Your task to perform on an android device: see tabs open on other devices in the chrome app Image 0: 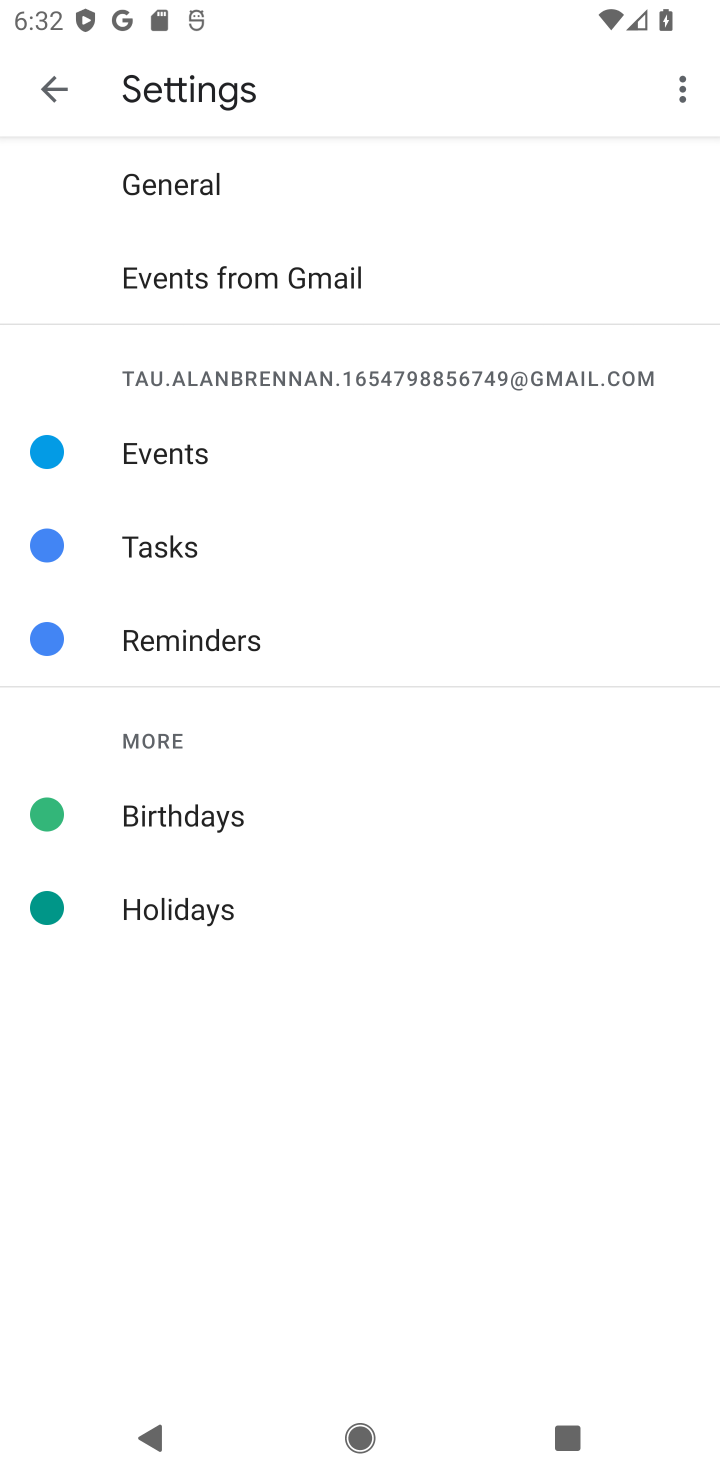
Step 0: press home button
Your task to perform on an android device: see tabs open on other devices in the chrome app Image 1: 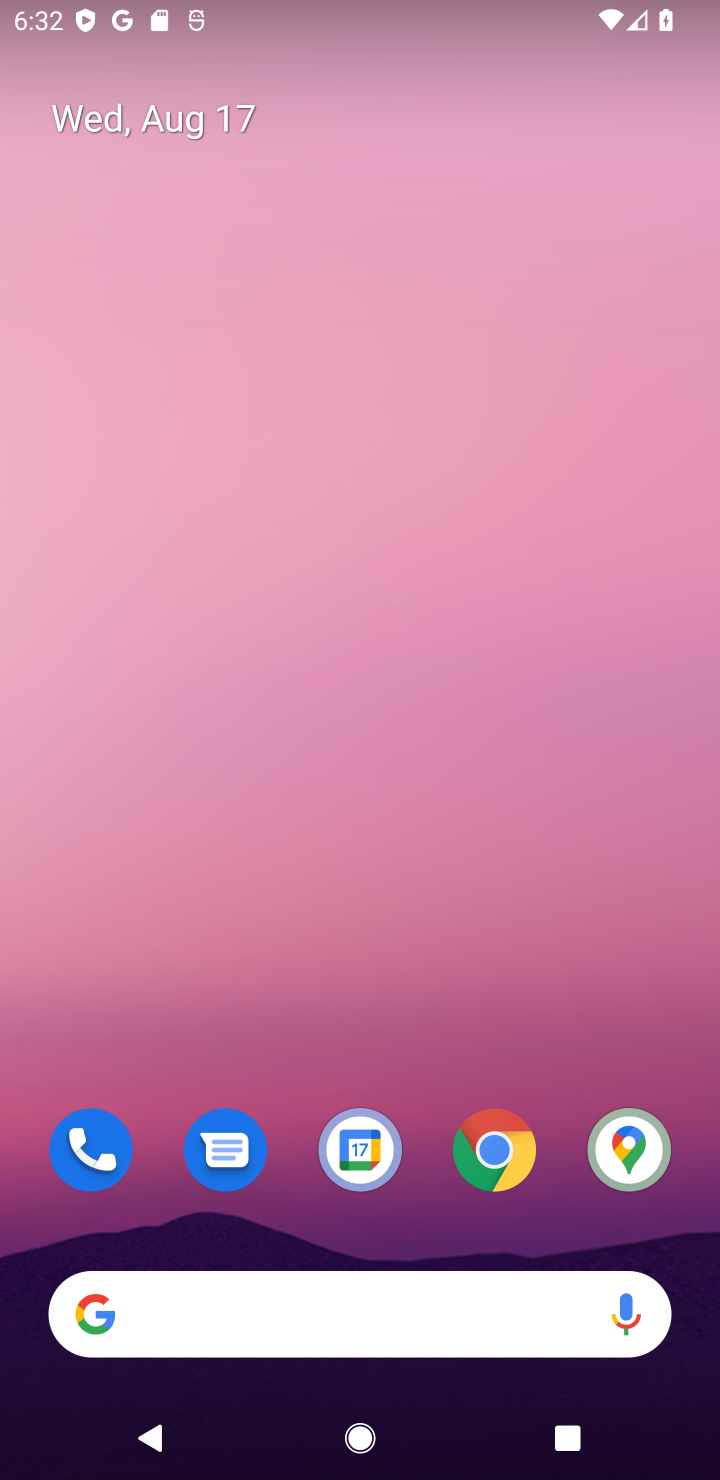
Step 1: click (489, 1159)
Your task to perform on an android device: see tabs open on other devices in the chrome app Image 2: 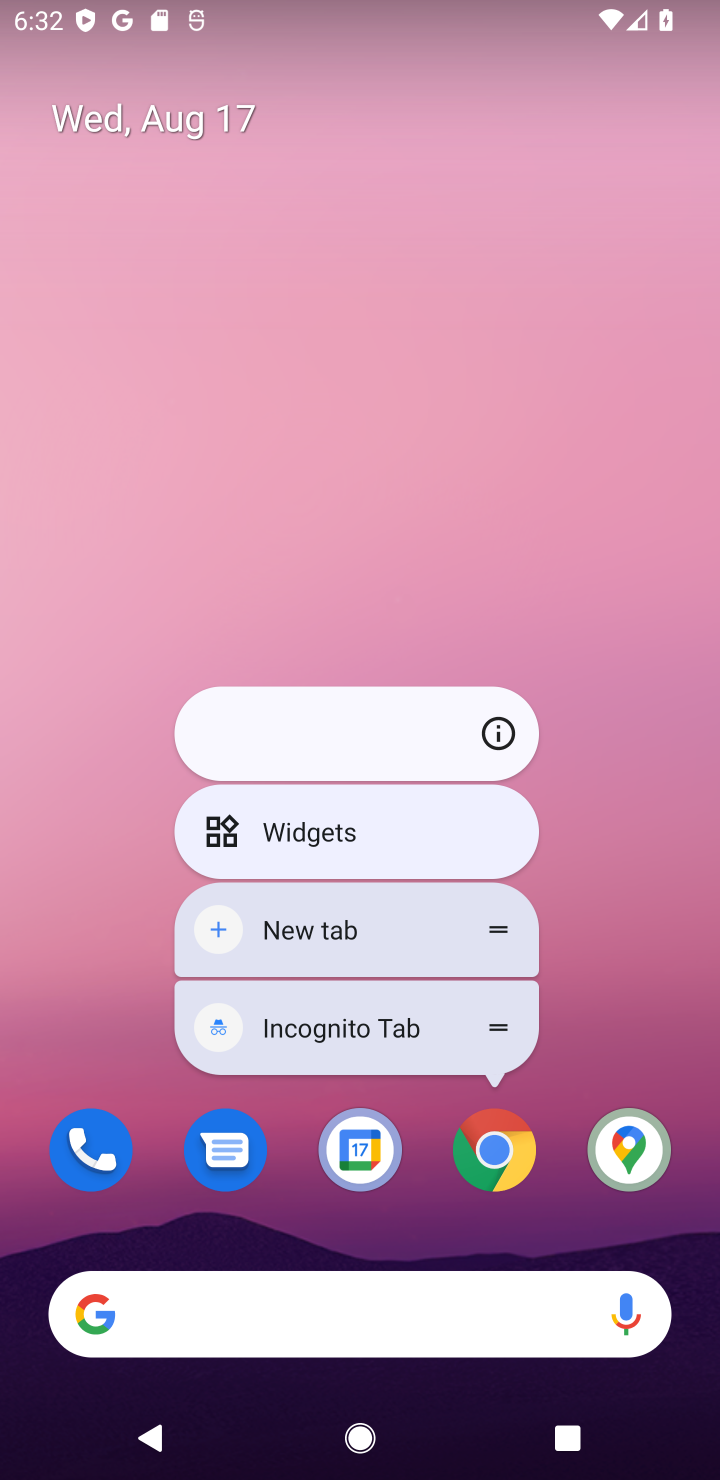
Step 2: click (475, 1123)
Your task to perform on an android device: see tabs open on other devices in the chrome app Image 3: 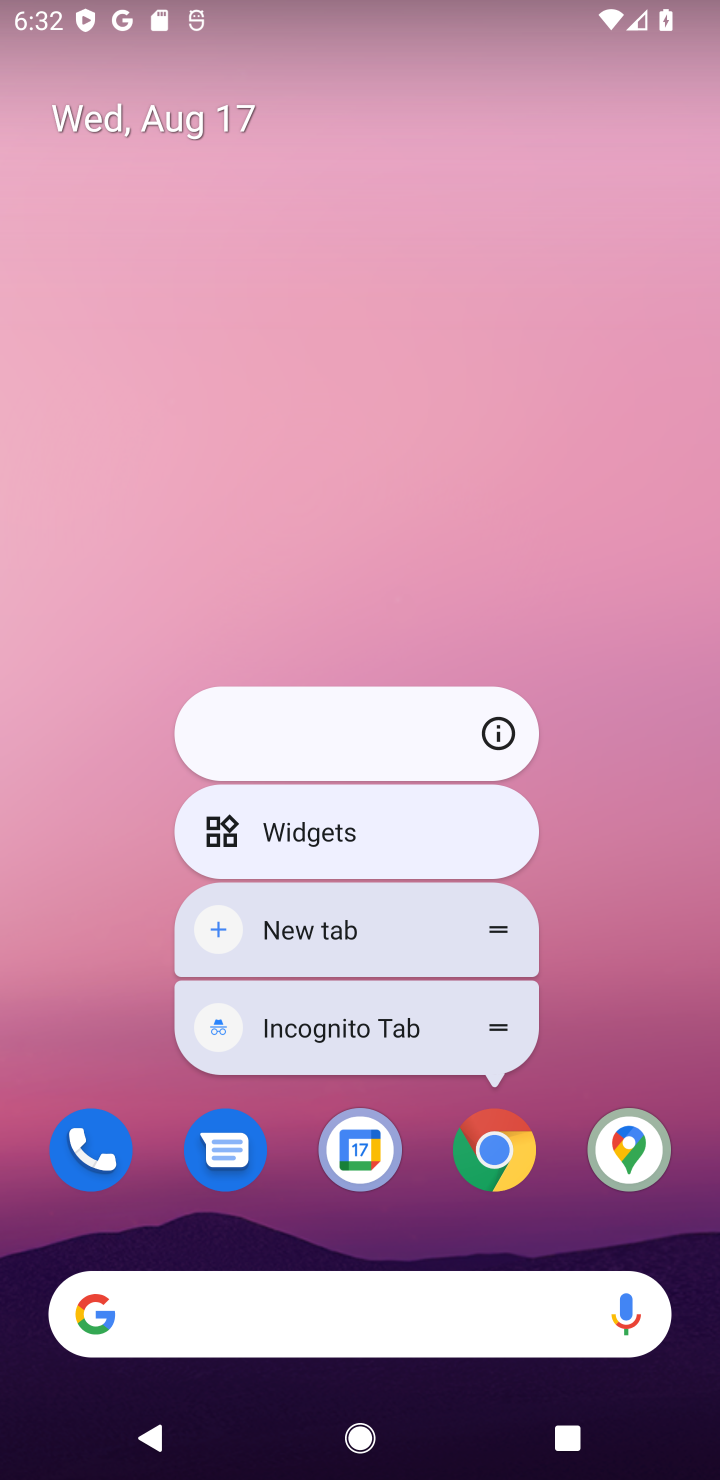
Step 3: click (477, 1136)
Your task to perform on an android device: see tabs open on other devices in the chrome app Image 4: 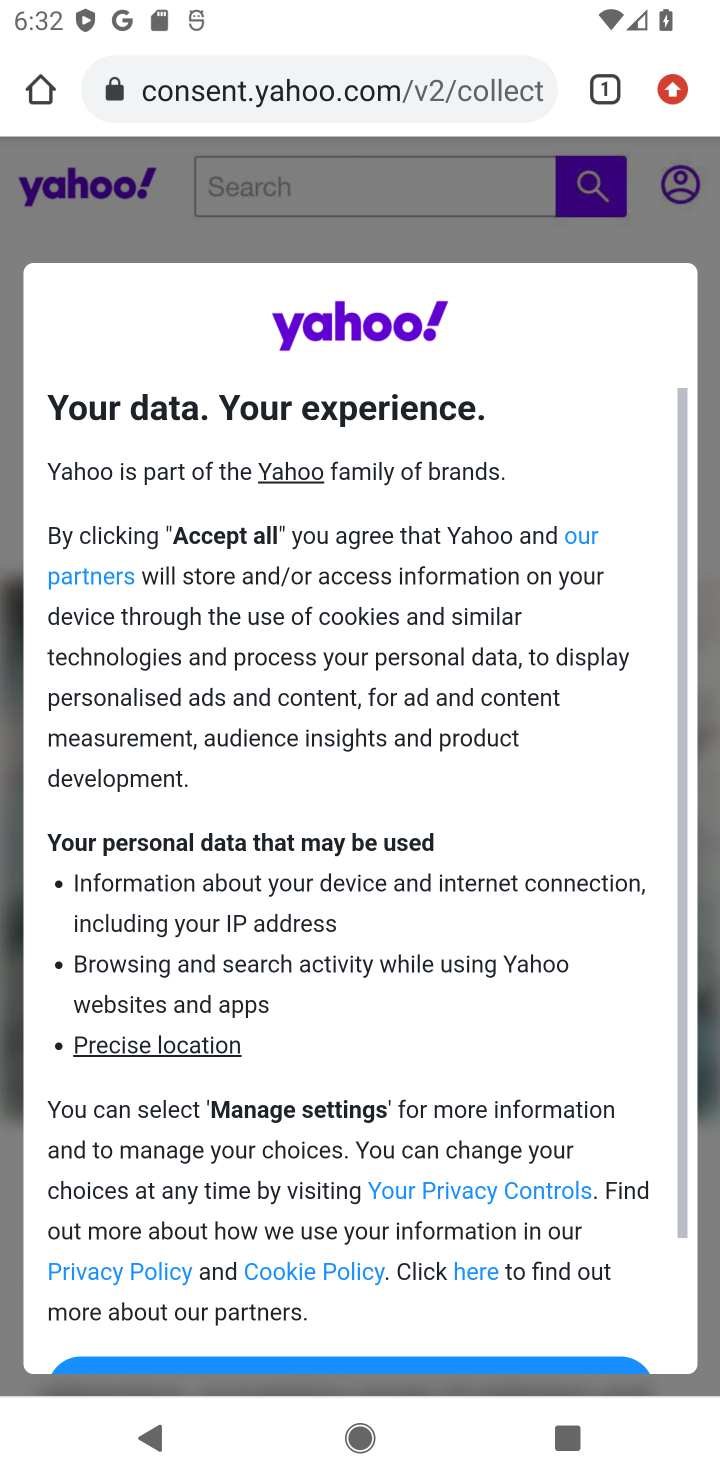
Step 4: click (619, 89)
Your task to perform on an android device: see tabs open on other devices in the chrome app Image 5: 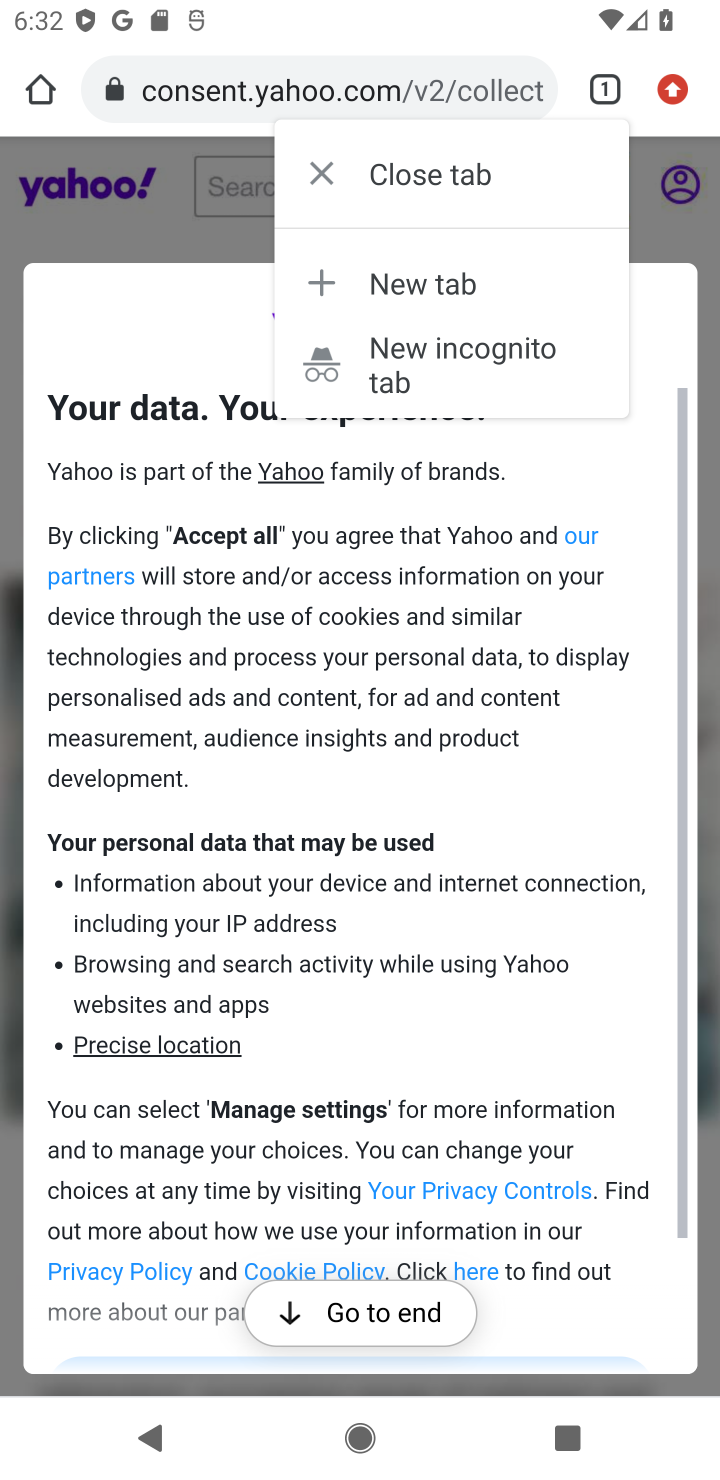
Step 5: task complete